Your task to perform on an android device: empty trash in the gmail app Image 0: 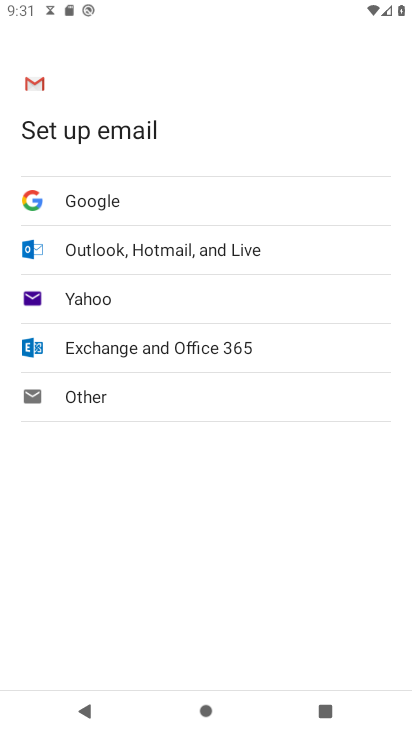
Step 0: press home button
Your task to perform on an android device: empty trash in the gmail app Image 1: 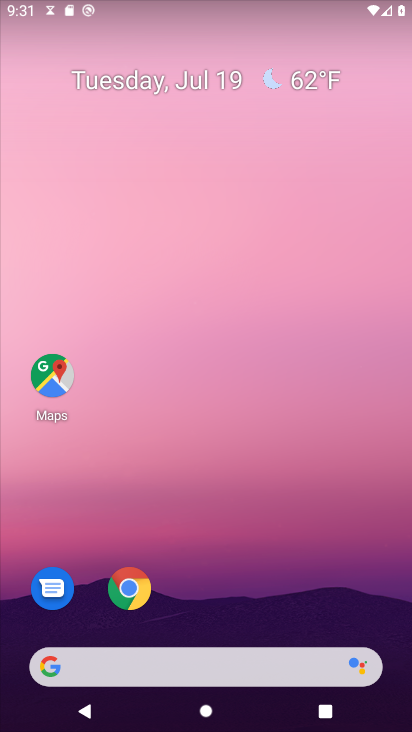
Step 1: drag from (203, 497) to (212, 35)
Your task to perform on an android device: empty trash in the gmail app Image 2: 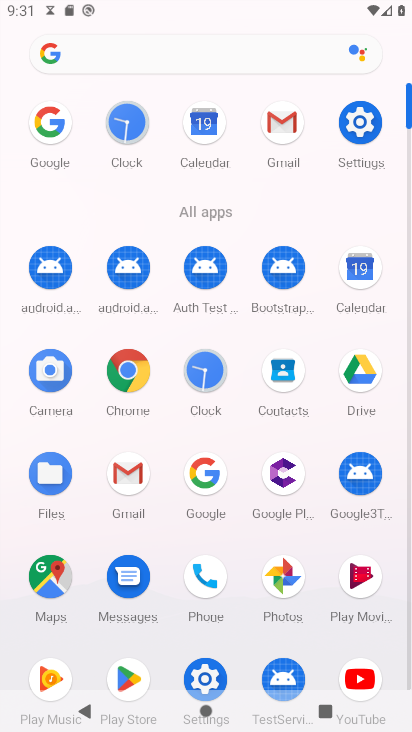
Step 2: click (124, 490)
Your task to perform on an android device: empty trash in the gmail app Image 3: 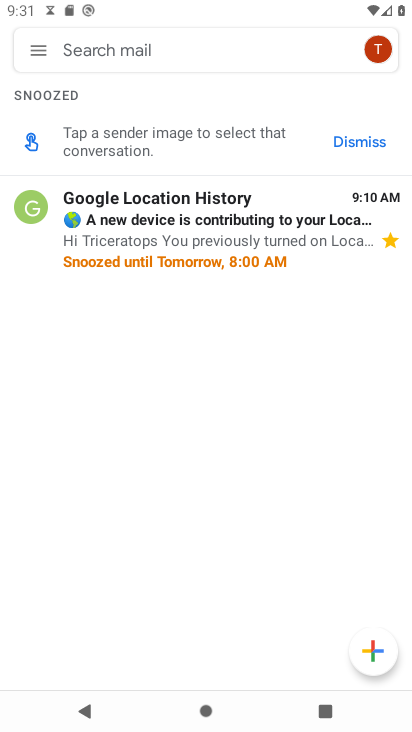
Step 3: click (31, 50)
Your task to perform on an android device: empty trash in the gmail app Image 4: 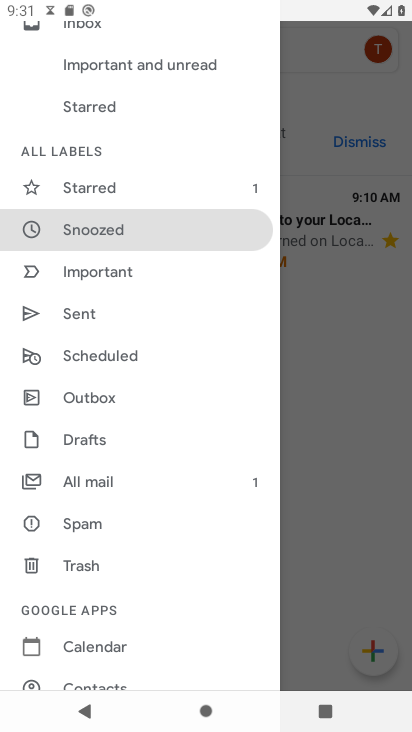
Step 4: click (57, 559)
Your task to perform on an android device: empty trash in the gmail app Image 5: 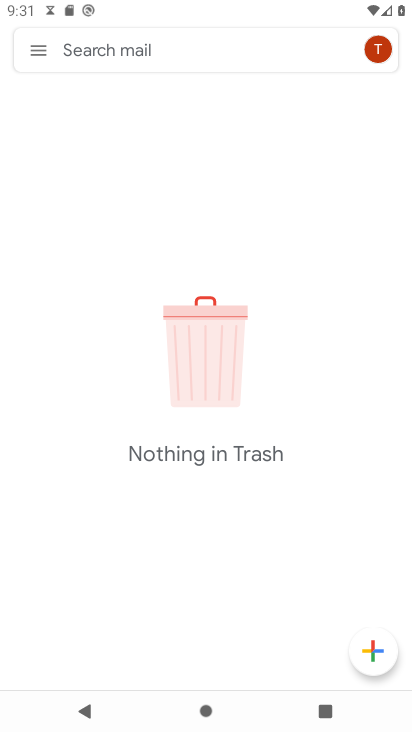
Step 5: task complete